Your task to perform on an android device: What's the weather today? Image 0: 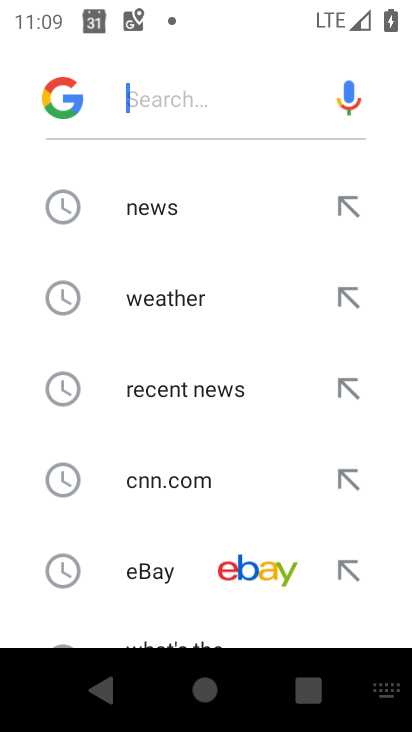
Step 0: press home button
Your task to perform on an android device: What's the weather today? Image 1: 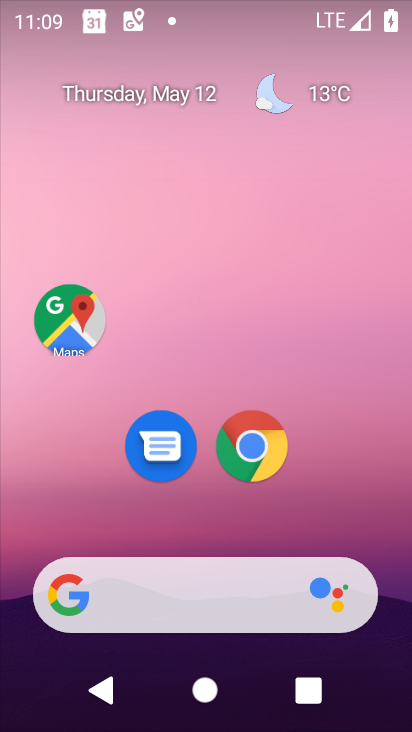
Step 1: drag from (233, 565) to (329, 4)
Your task to perform on an android device: What's the weather today? Image 2: 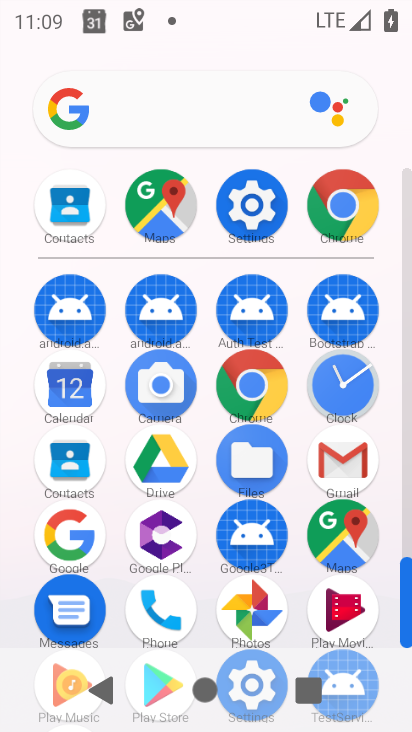
Step 2: click (251, 392)
Your task to perform on an android device: What's the weather today? Image 3: 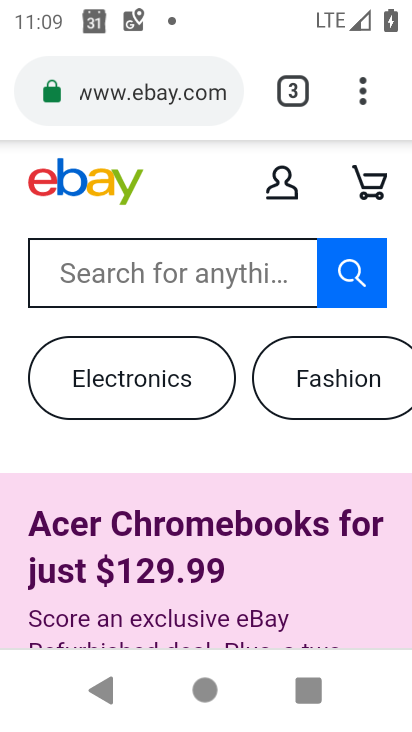
Step 3: click (210, 103)
Your task to perform on an android device: What's the weather today? Image 4: 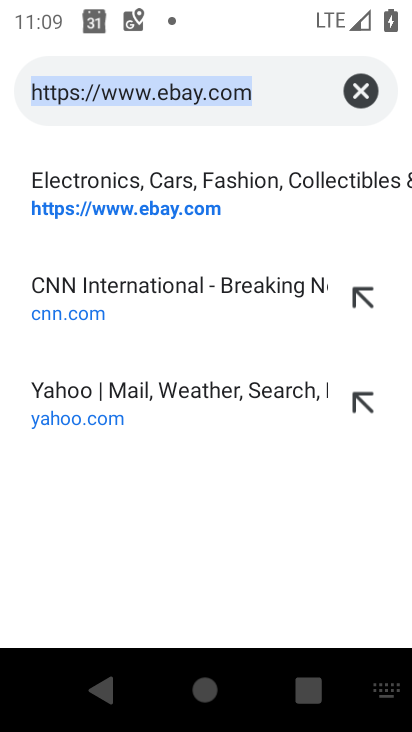
Step 4: click (372, 88)
Your task to perform on an android device: What's the weather today? Image 5: 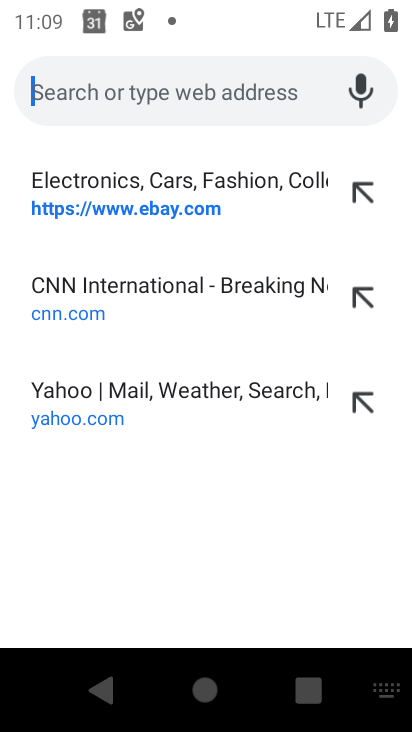
Step 5: type "weather today"
Your task to perform on an android device: What's the weather today? Image 6: 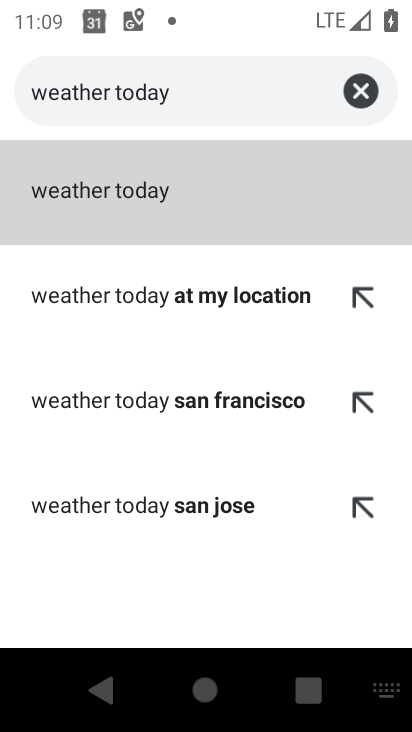
Step 6: click (307, 219)
Your task to perform on an android device: What's the weather today? Image 7: 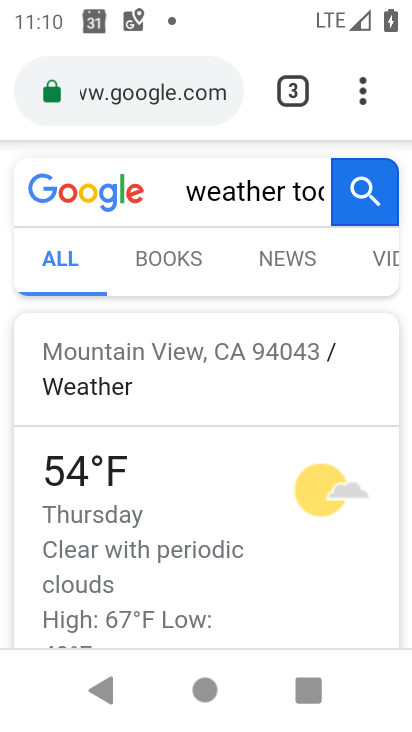
Step 7: task complete